Your task to perform on an android device: turn on the 24-hour format for clock Image 0: 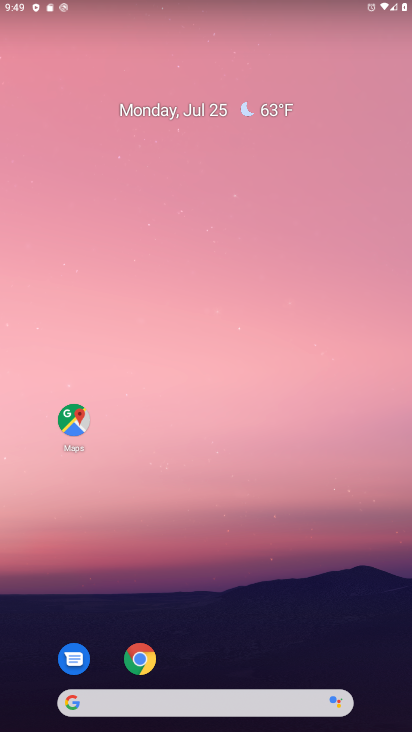
Step 0: drag from (222, 730) to (195, 92)
Your task to perform on an android device: turn on the 24-hour format for clock Image 1: 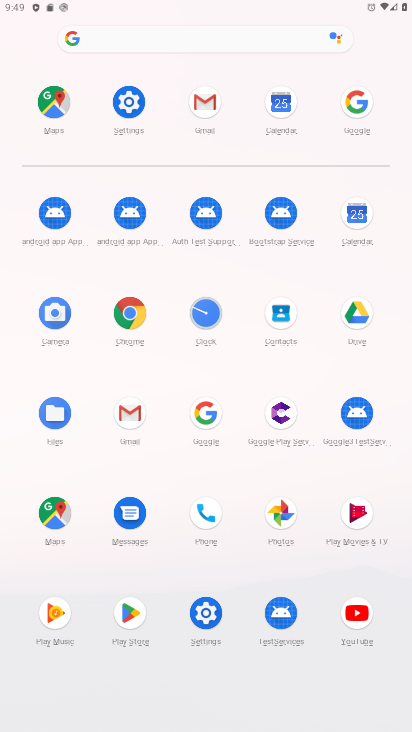
Step 1: click (211, 315)
Your task to perform on an android device: turn on the 24-hour format for clock Image 2: 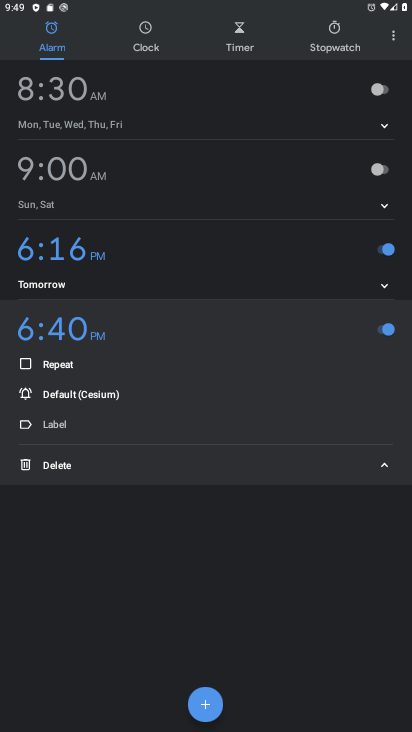
Step 2: click (393, 37)
Your task to perform on an android device: turn on the 24-hour format for clock Image 3: 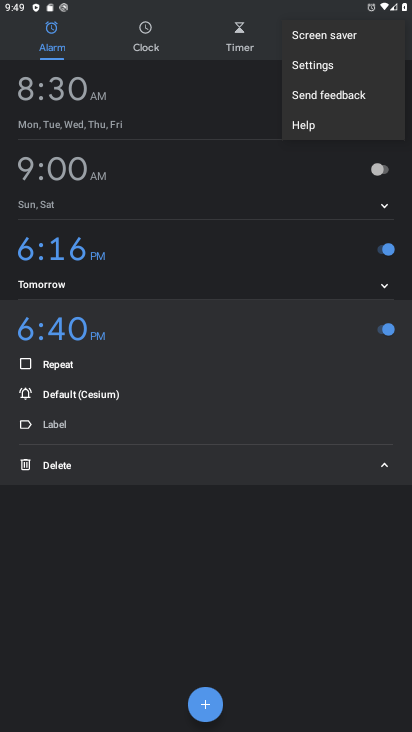
Step 3: click (324, 69)
Your task to perform on an android device: turn on the 24-hour format for clock Image 4: 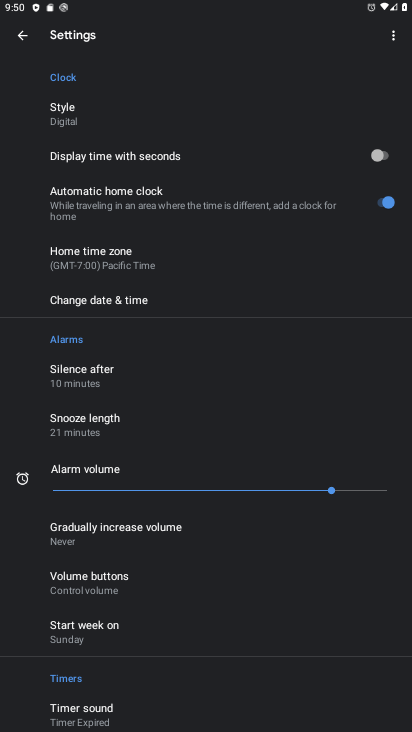
Step 4: click (130, 296)
Your task to perform on an android device: turn on the 24-hour format for clock Image 5: 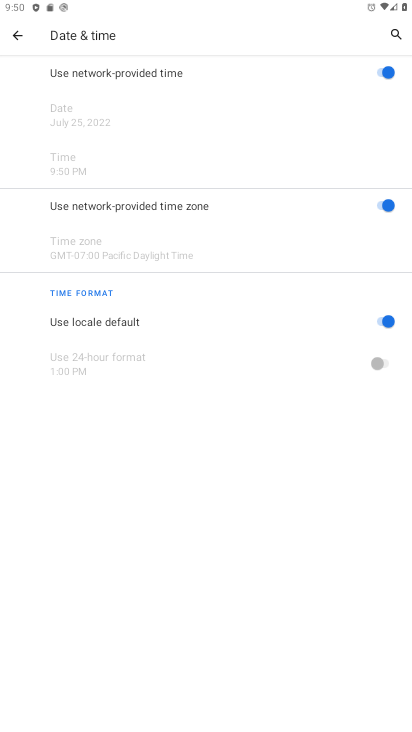
Step 5: click (386, 314)
Your task to perform on an android device: turn on the 24-hour format for clock Image 6: 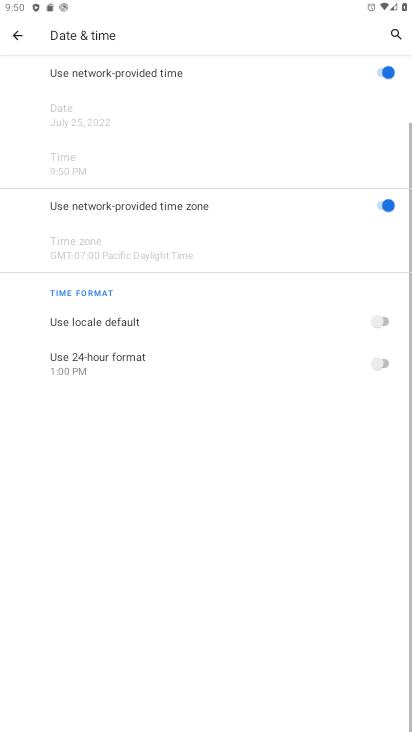
Step 6: click (385, 365)
Your task to perform on an android device: turn on the 24-hour format for clock Image 7: 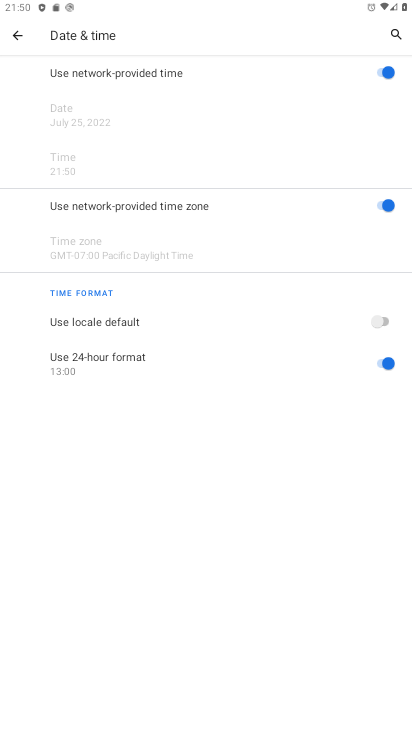
Step 7: task complete